Your task to perform on an android device: Do I have any events today? Image 0: 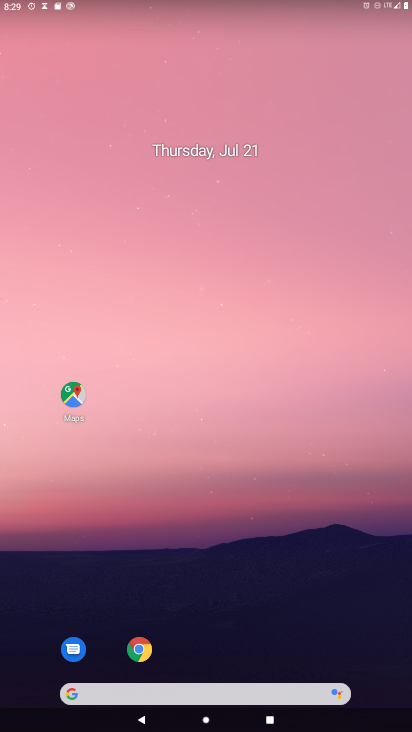
Step 0: drag from (366, 599) to (203, 33)
Your task to perform on an android device: Do I have any events today? Image 1: 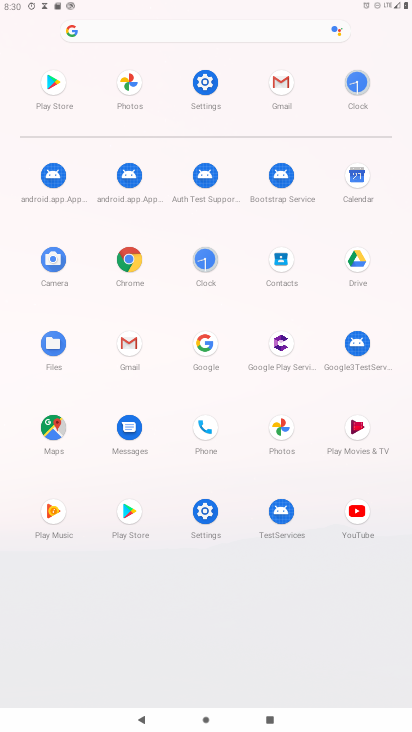
Step 1: click (359, 170)
Your task to perform on an android device: Do I have any events today? Image 2: 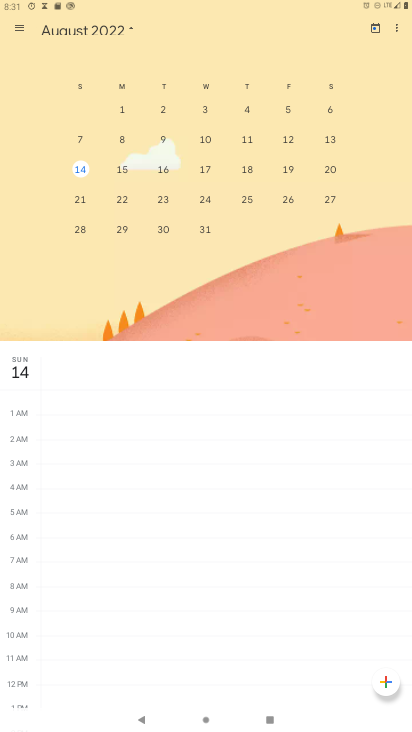
Step 2: task complete